Your task to perform on an android device: Search for jbl charge 4 on bestbuy.com, select the first entry, add it to the cart, then select checkout. Image 0: 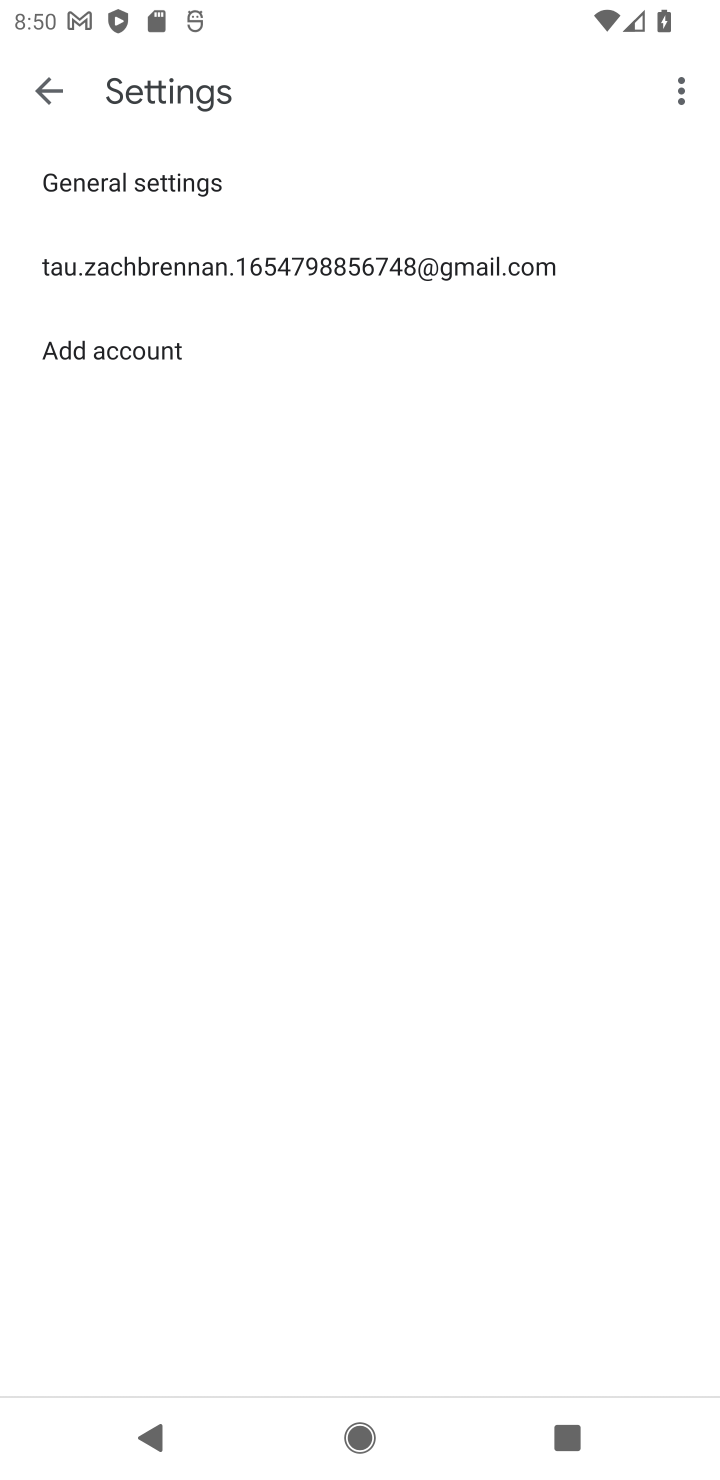
Step 0: press home button
Your task to perform on an android device: Search for jbl charge 4 on bestbuy.com, select the first entry, add it to the cart, then select checkout. Image 1: 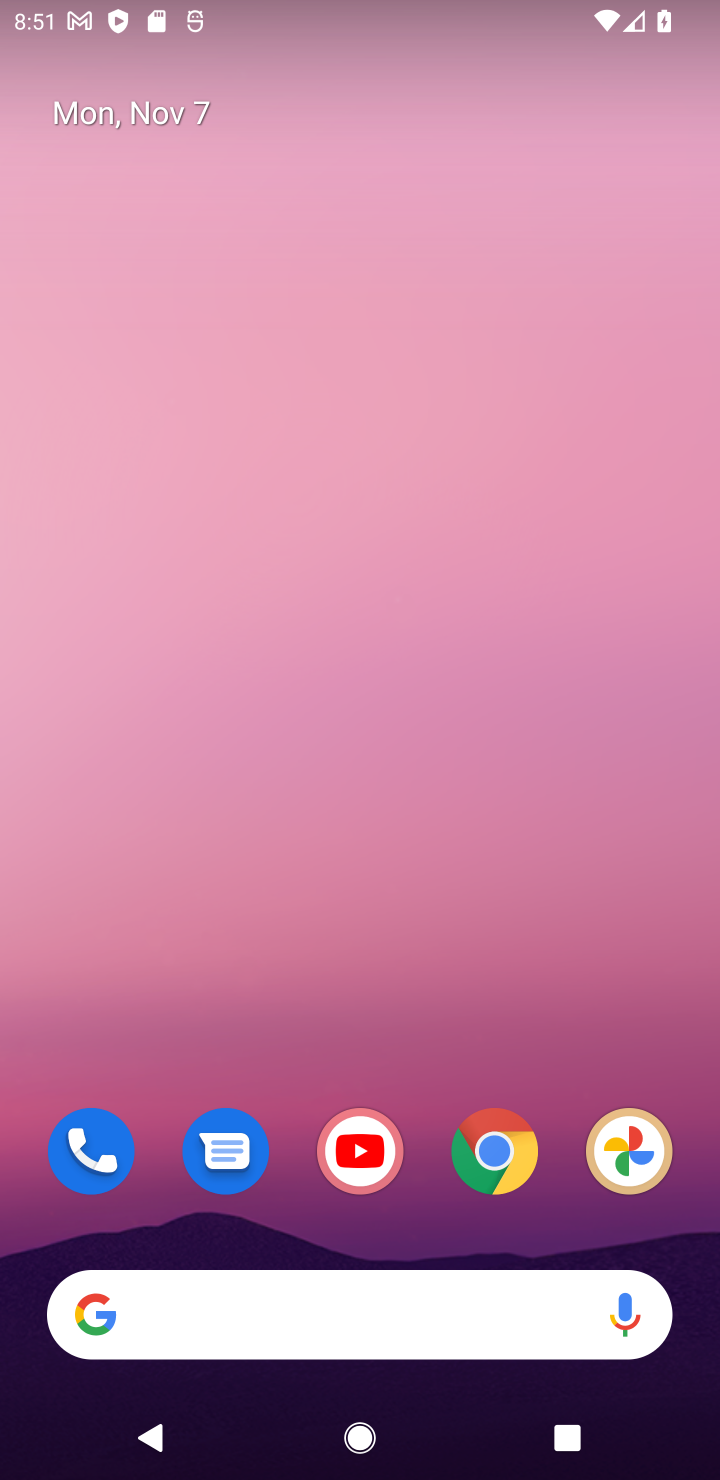
Step 1: click (496, 1161)
Your task to perform on an android device: Search for jbl charge 4 on bestbuy.com, select the first entry, add it to the cart, then select checkout. Image 2: 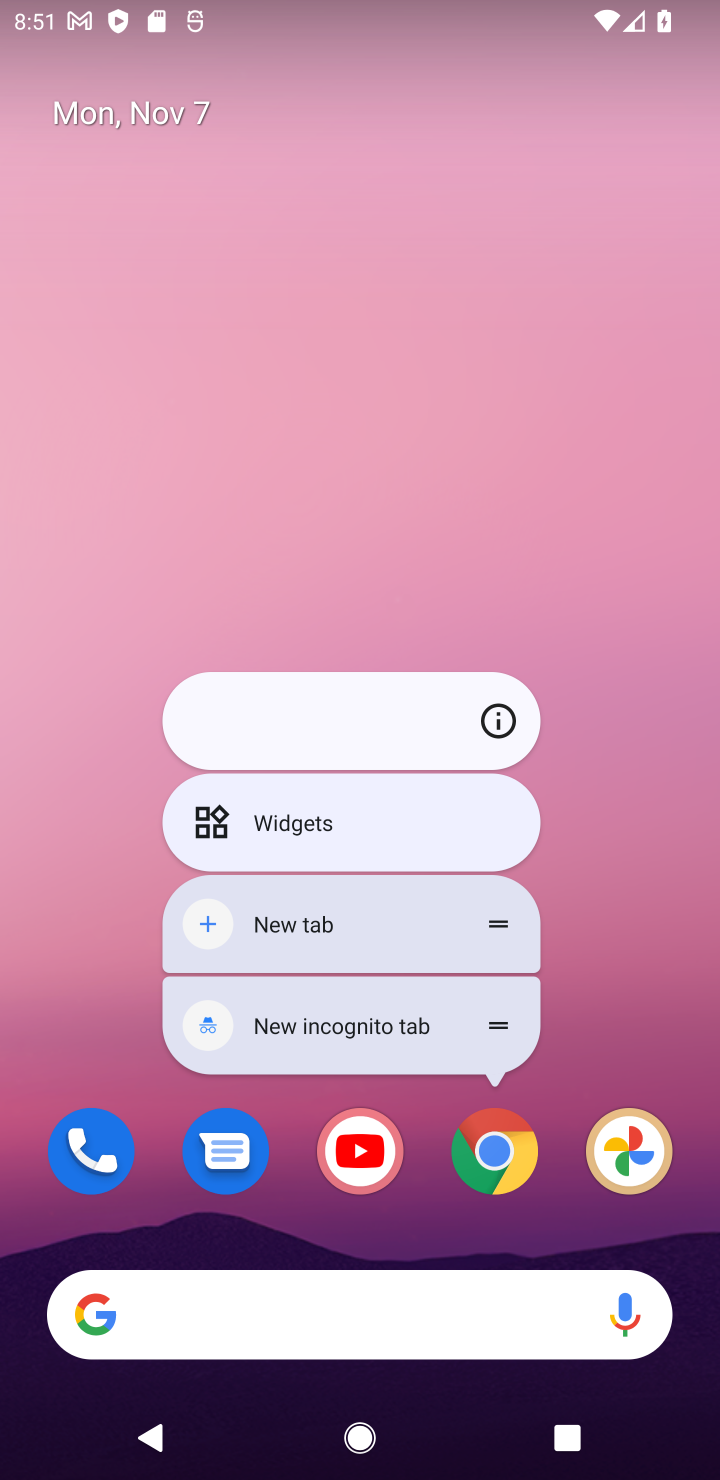
Step 2: click (493, 1159)
Your task to perform on an android device: Search for jbl charge 4 on bestbuy.com, select the first entry, add it to the cart, then select checkout. Image 3: 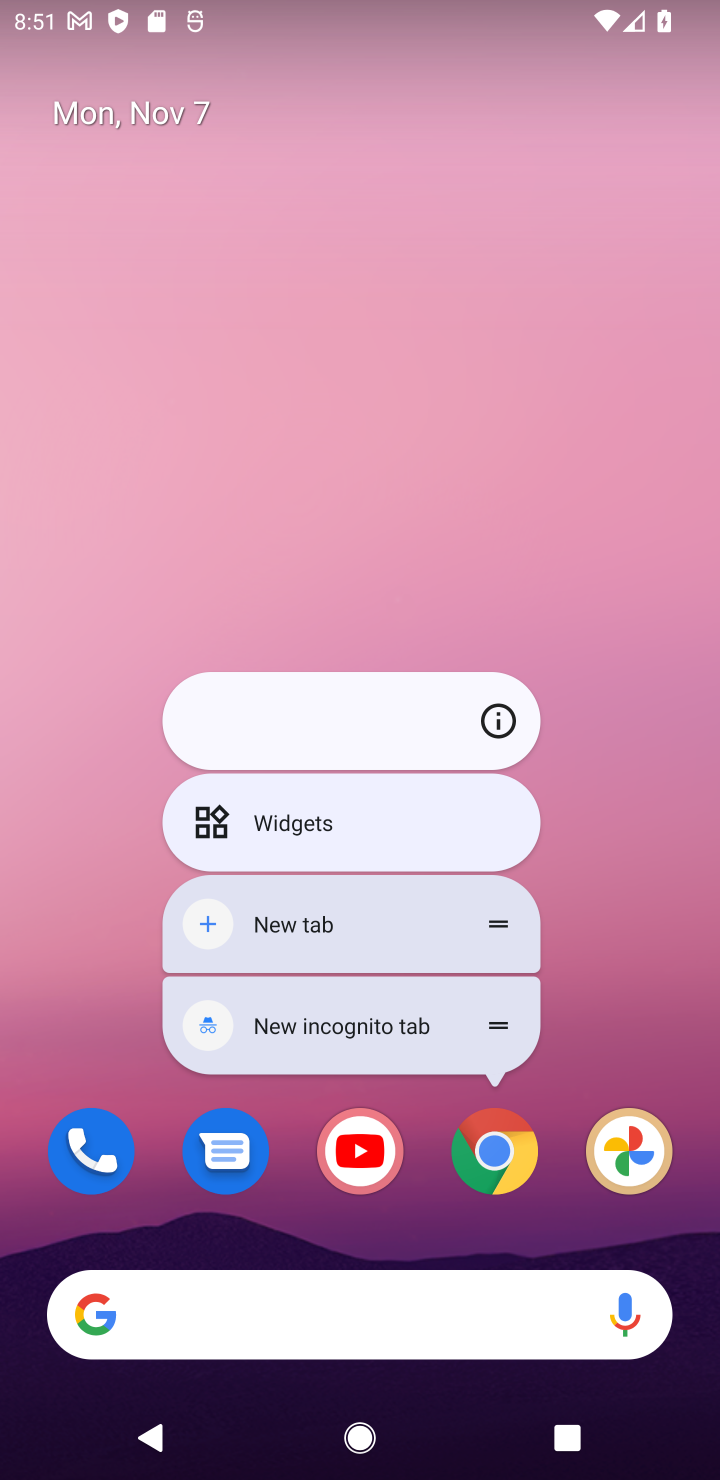
Step 3: click (504, 1138)
Your task to perform on an android device: Search for jbl charge 4 on bestbuy.com, select the first entry, add it to the cart, then select checkout. Image 4: 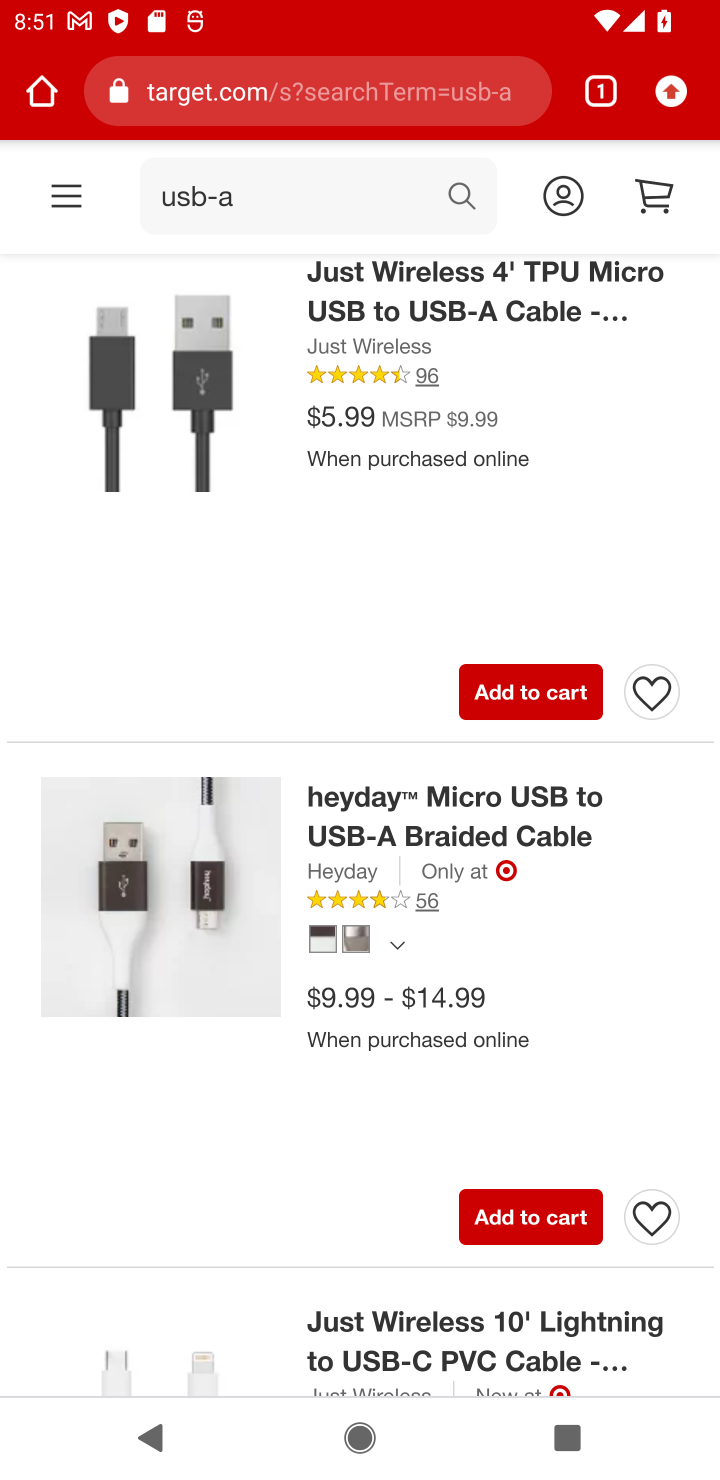
Step 4: click (326, 78)
Your task to perform on an android device: Search for jbl charge 4 on bestbuy.com, select the first entry, add it to the cart, then select checkout. Image 5: 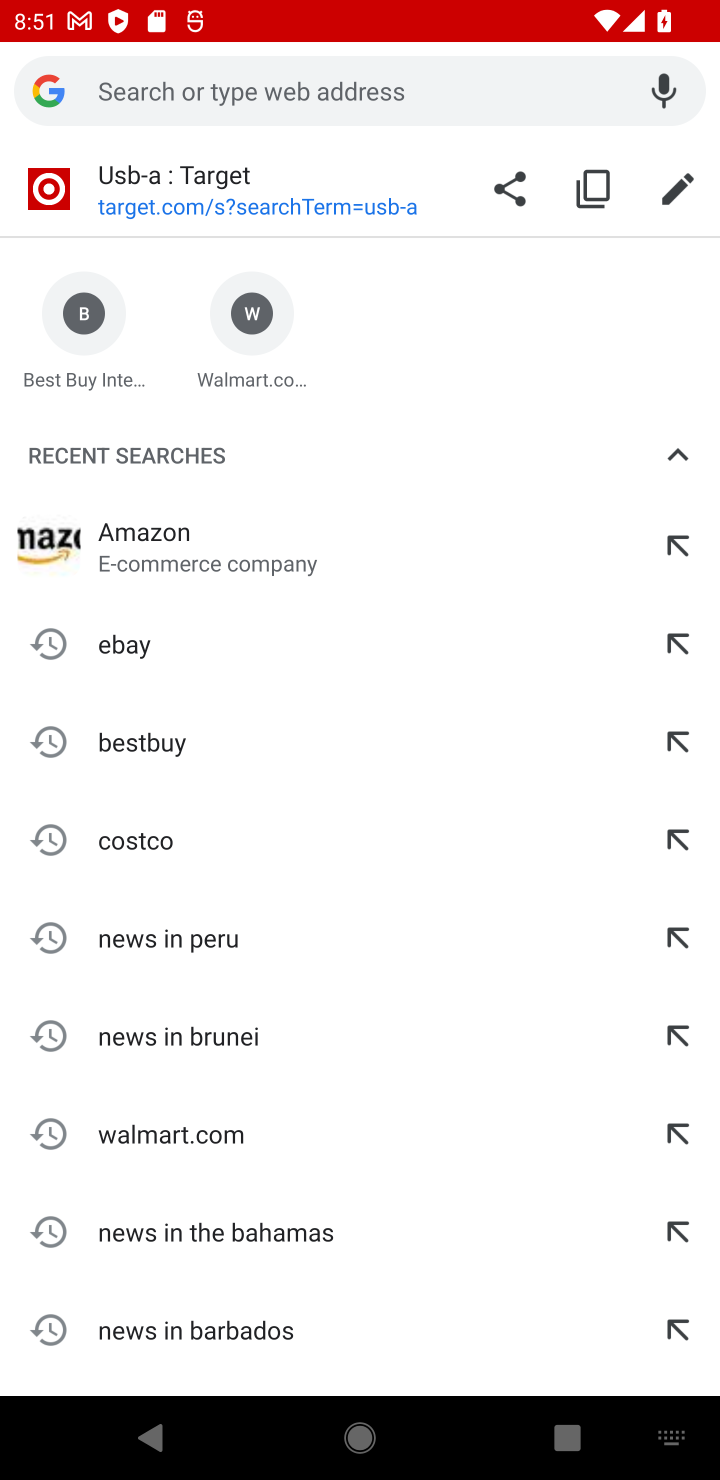
Step 5: click (131, 735)
Your task to perform on an android device: Search for jbl charge 4 on bestbuy.com, select the first entry, add it to the cart, then select checkout. Image 6: 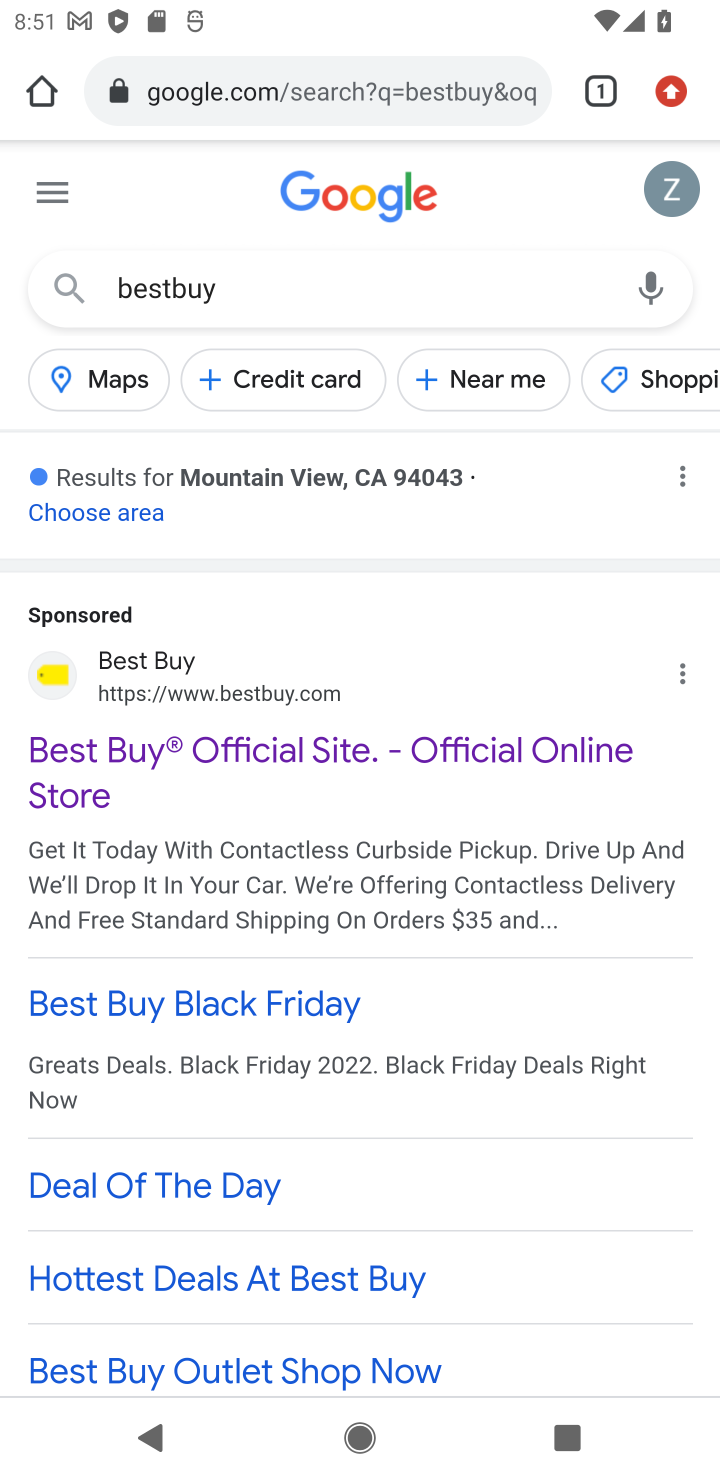
Step 6: click (238, 748)
Your task to perform on an android device: Search for jbl charge 4 on bestbuy.com, select the first entry, add it to the cart, then select checkout. Image 7: 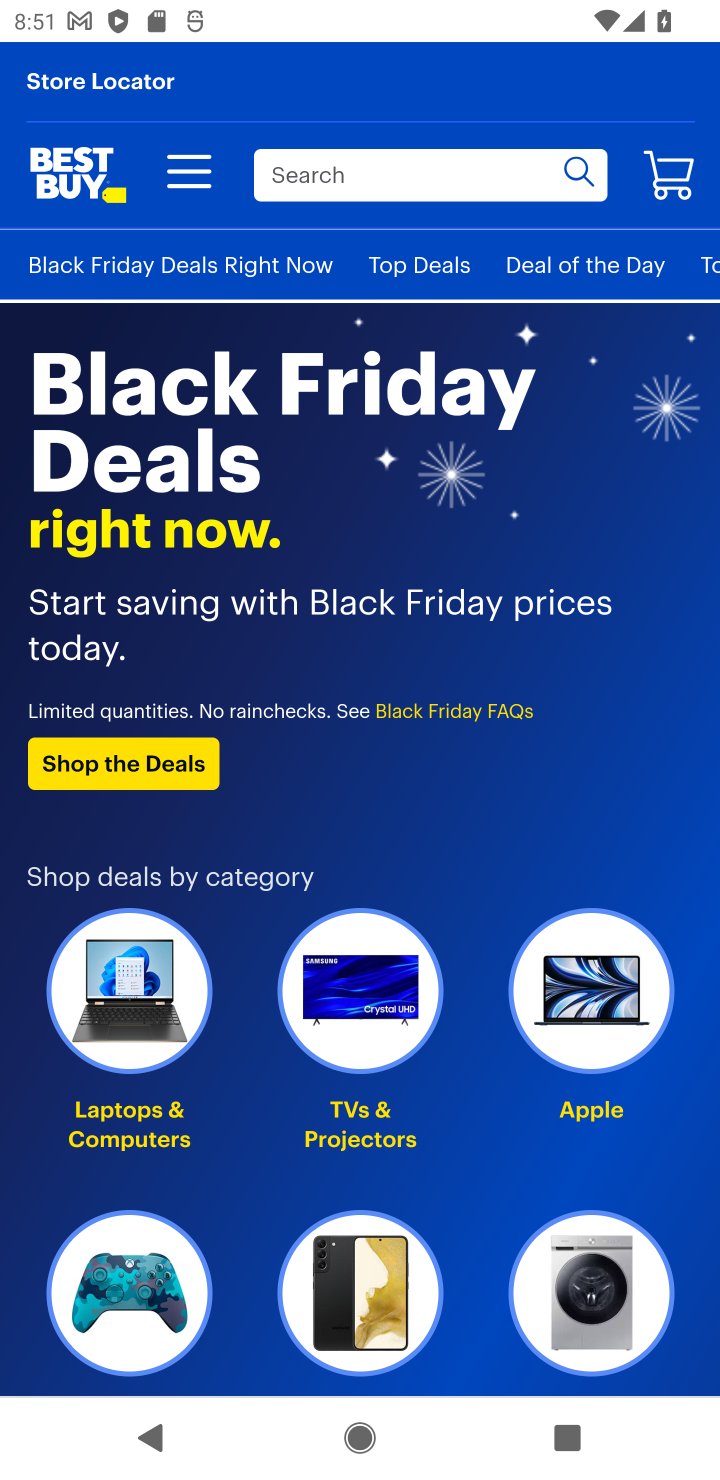
Step 7: click (441, 173)
Your task to perform on an android device: Search for jbl charge 4 on bestbuy.com, select the first entry, add it to the cart, then select checkout. Image 8: 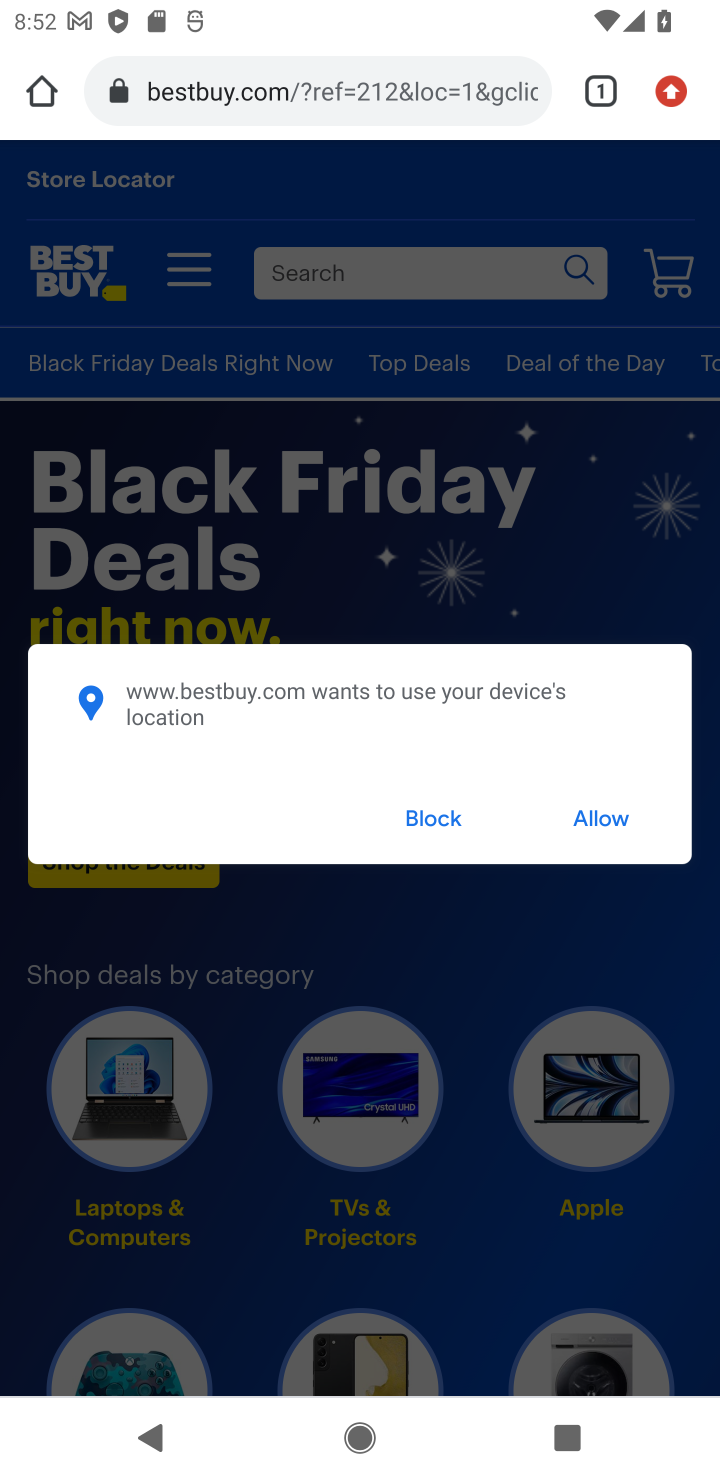
Step 8: click (377, 273)
Your task to perform on an android device: Search for jbl charge 4 on bestbuy.com, select the first entry, add it to the cart, then select checkout. Image 9: 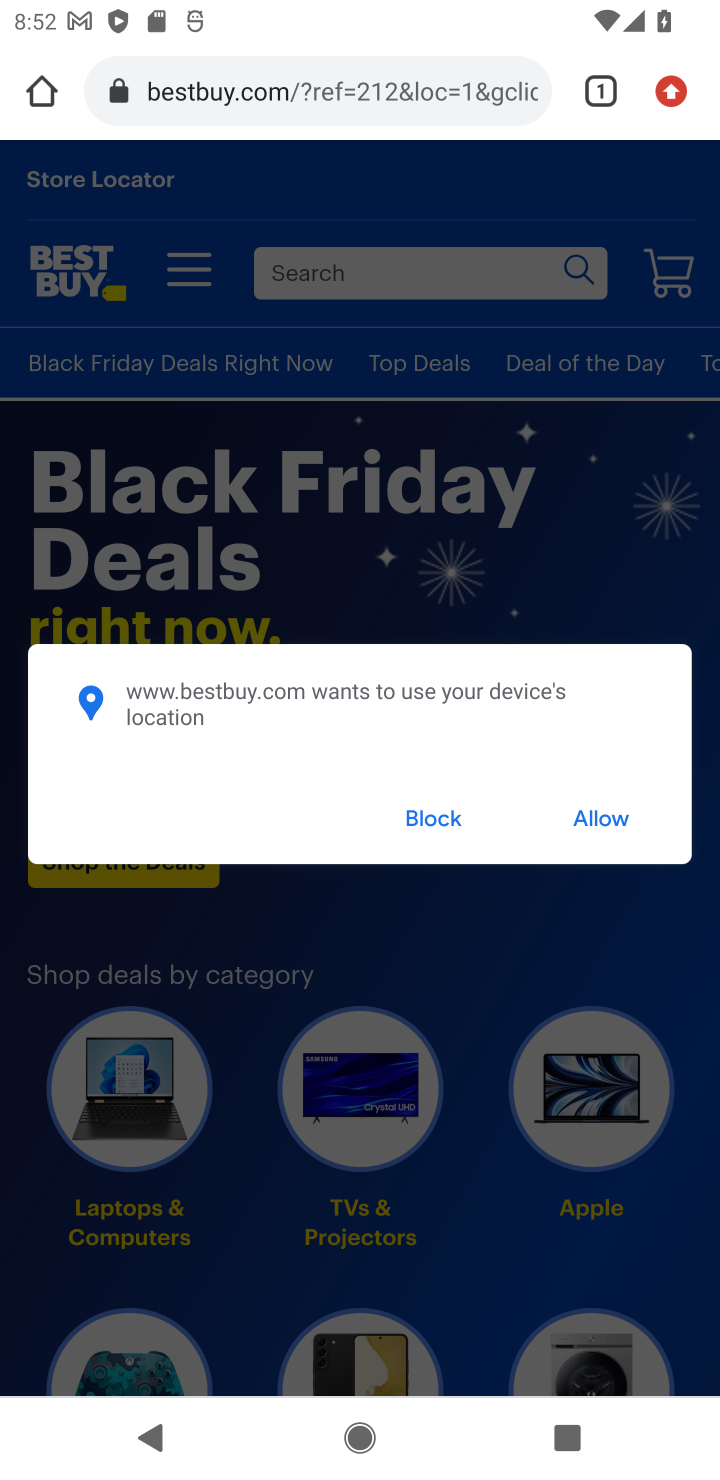
Step 9: click (441, 818)
Your task to perform on an android device: Search for jbl charge 4 on bestbuy.com, select the first entry, add it to the cart, then select checkout. Image 10: 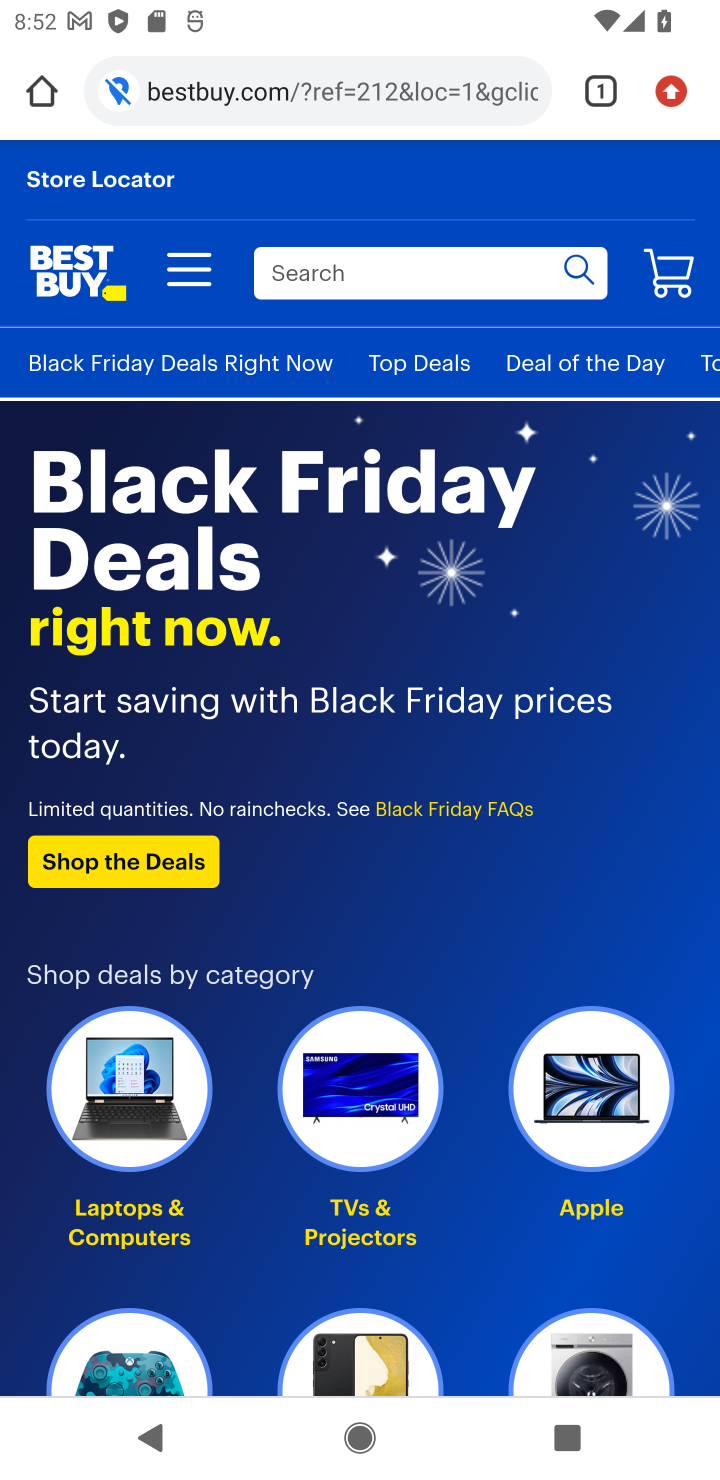
Step 10: click (394, 278)
Your task to perform on an android device: Search for jbl charge 4 on bestbuy.com, select the first entry, add it to the cart, then select checkout. Image 11: 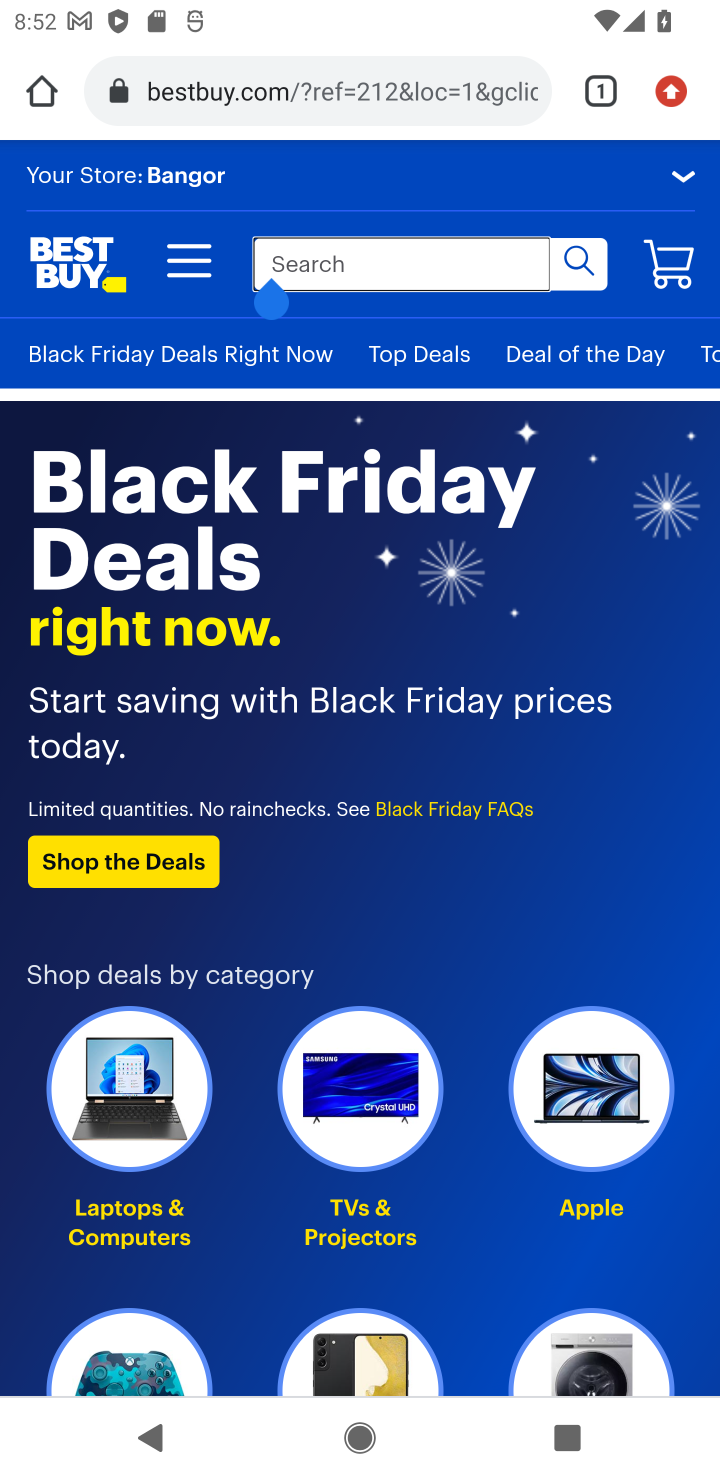
Step 11: press enter
Your task to perform on an android device: Search for jbl charge 4 on bestbuy.com, select the first entry, add it to the cart, then select checkout. Image 12: 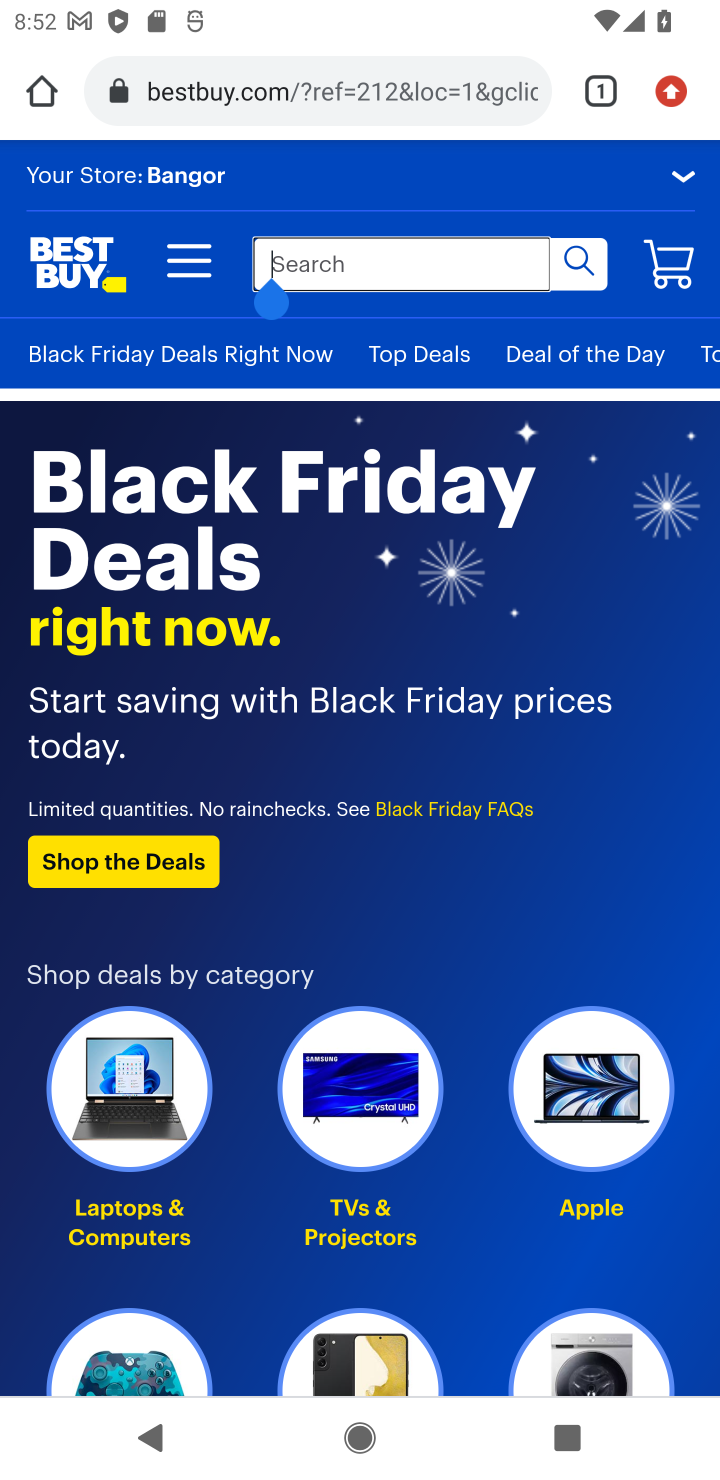
Step 12: type "jbl charge 4"
Your task to perform on an android device: Search for jbl charge 4 on bestbuy.com, select the first entry, add it to the cart, then select checkout. Image 13: 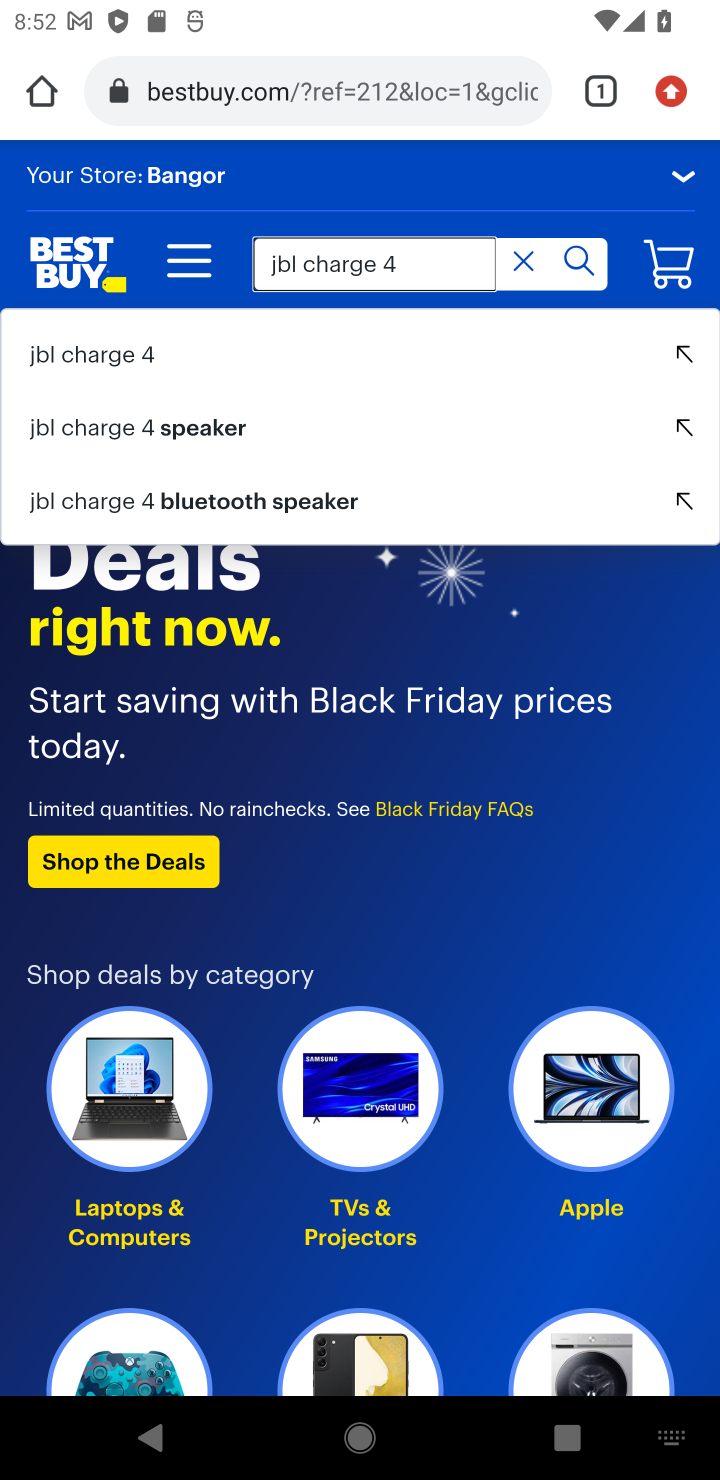
Step 13: press enter
Your task to perform on an android device: Search for jbl charge 4 on bestbuy.com, select the first entry, add it to the cart, then select checkout. Image 14: 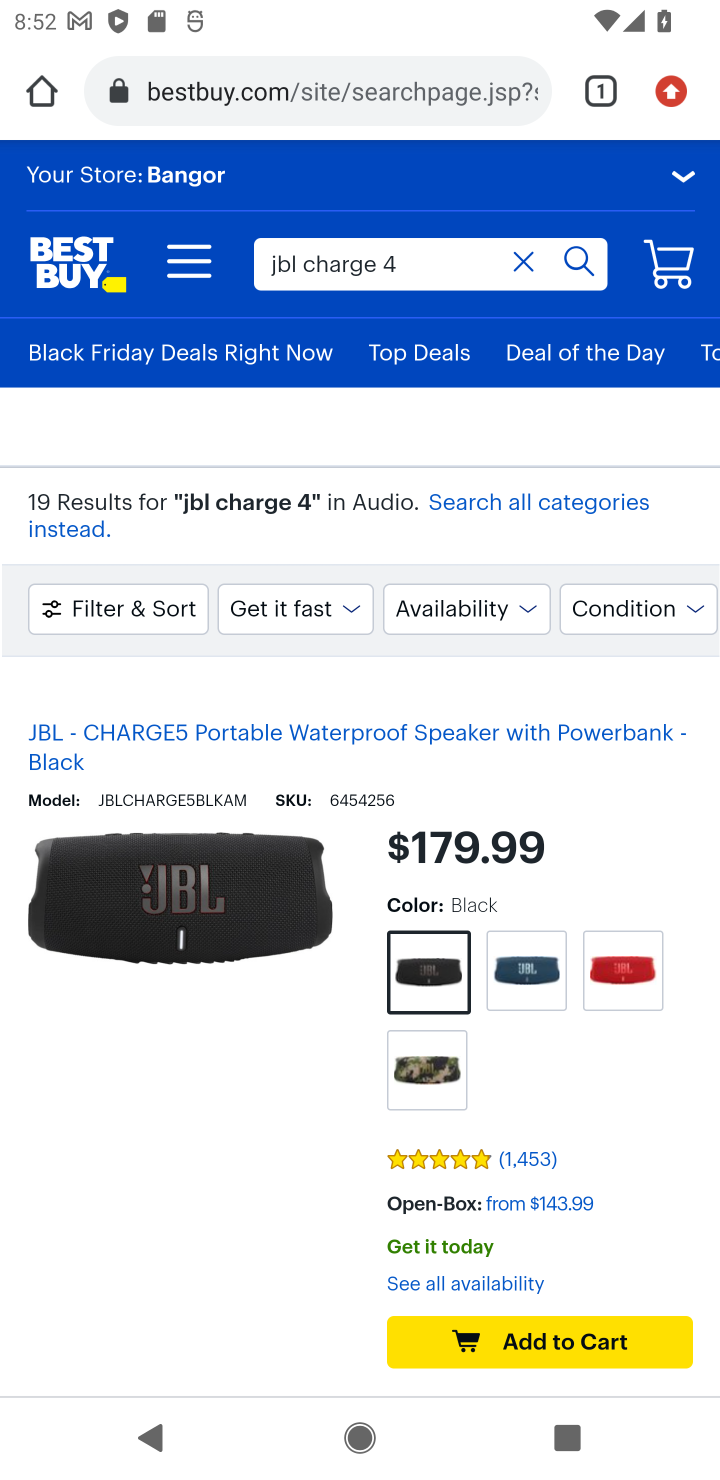
Step 14: task complete